Your task to perform on an android device: toggle javascript in the chrome app Image 0: 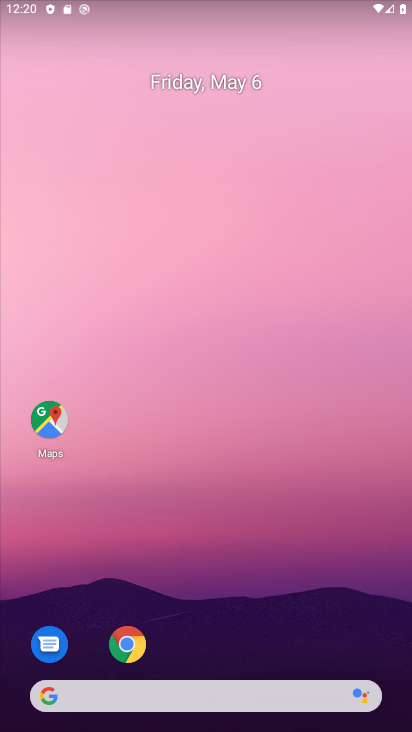
Step 0: click (323, 2)
Your task to perform on an android device: toggle javascript in the chrome app Image 1: 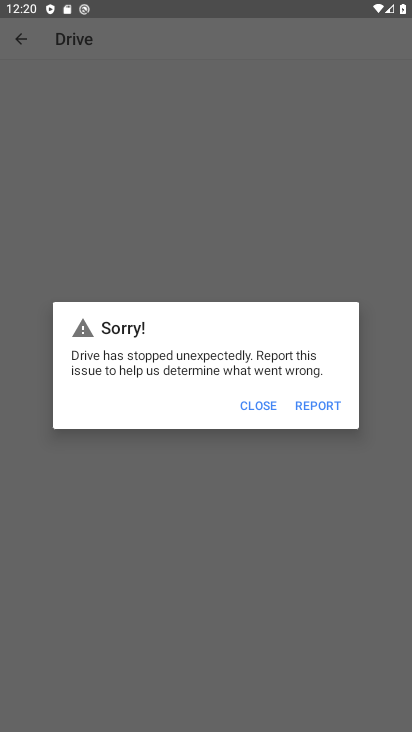
Step 1: press home button
Your task to perform on an android device: toggle javascript in the chrome app Image 2: 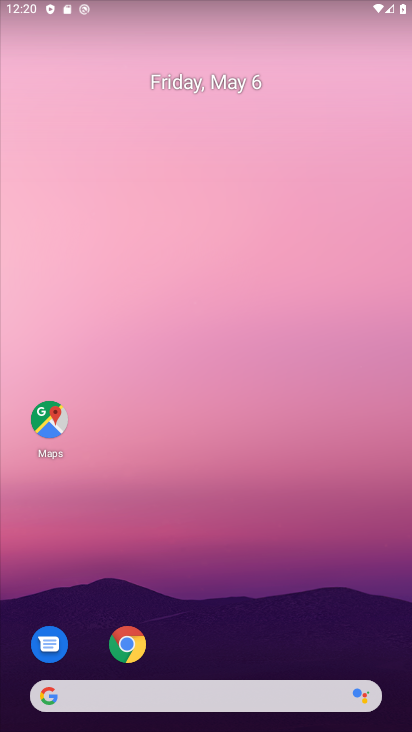
Step 2: drag from (339, 688) to (222, 13)
Your task to perform on an android device: toggle javascript in the chrome app Image 3: 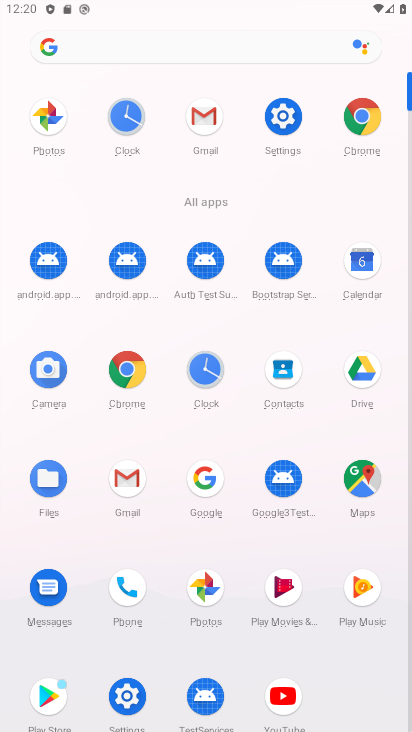
Step 3: click (139, 370)
Your task to perform on an android device: toggle javascript in the chrome app Image 4: 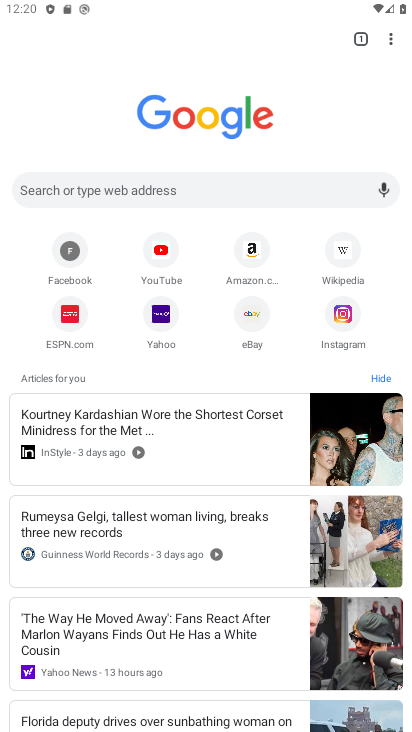
Step 4: click (391, 42)
Your task to perform on an android device: toggle javascript in the chrome app Image 5: 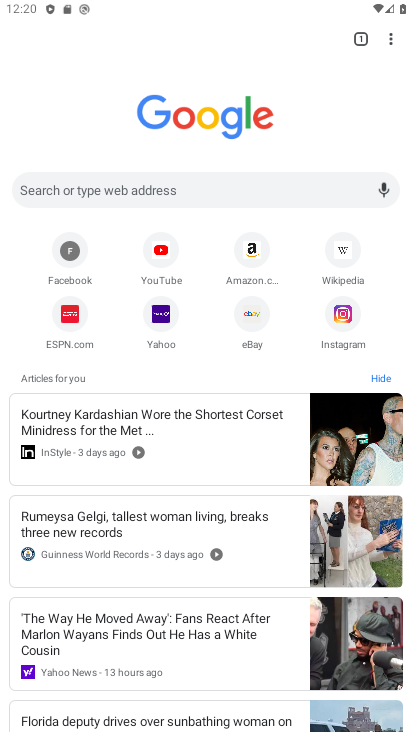
Step 5: drag from (391, 42) to (263, 323)
Your task to perform on an android device: toggle javascript in the chrome app Image 6: 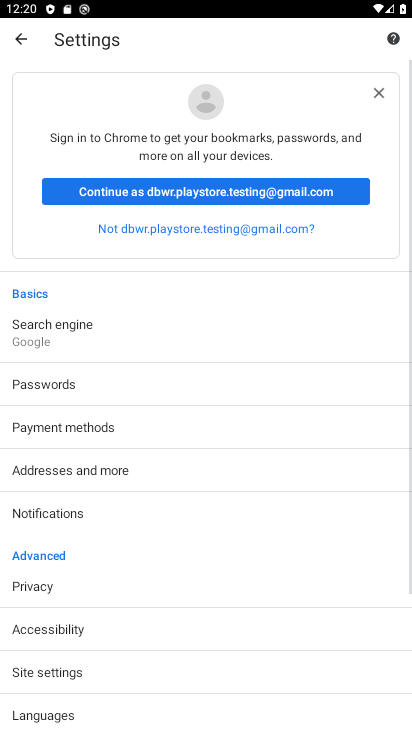
Step 6: drag from (153, 673) to (138, 388)
Your task to perform on an android device: toggle javascript in the chrome app Image 7: 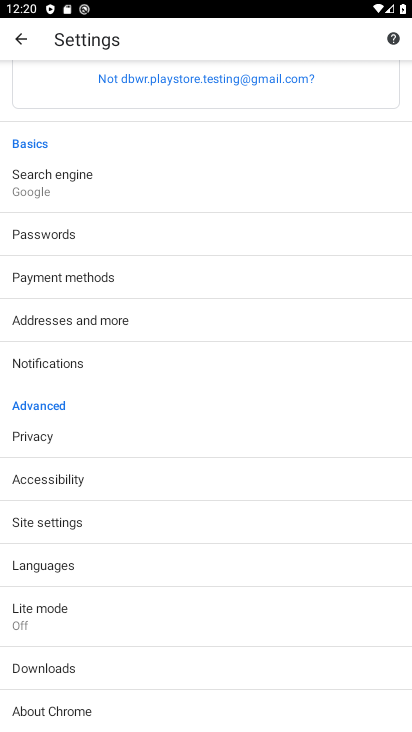
Step 7: click (117, 515)
Your task to perform on an android device: toggle javascript in the chrome app Image 8: 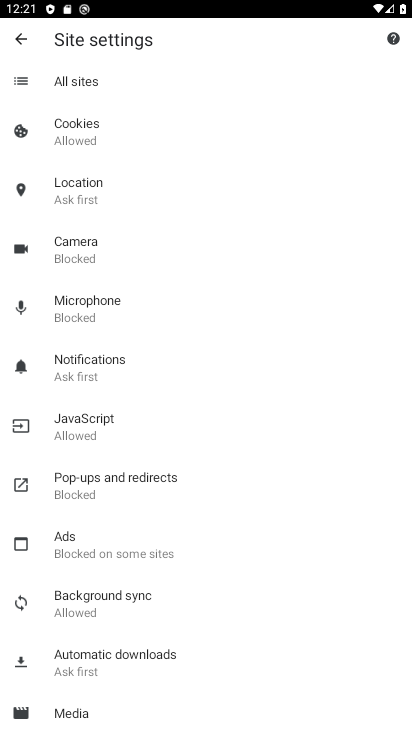
Step 8: click (91, 439)
Your task to perform on an android device: toggle javascript in the chrome app Image 9: 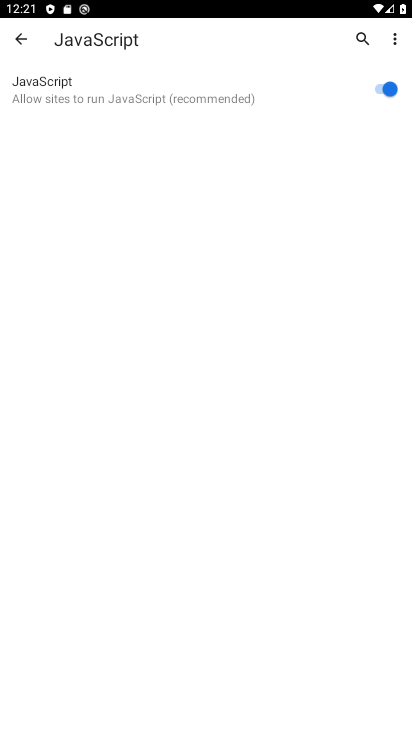
Step 9: click (386, 91)
Your task to perform on an android device: toggle javascript in the chrome app Image 10: 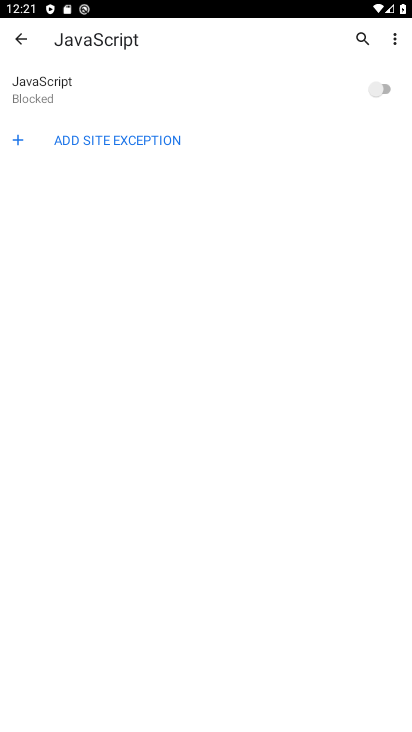
Step 10: task complete